Your task to perform on an android device: Open Youtube and go to the subscriptions tab Image 0: 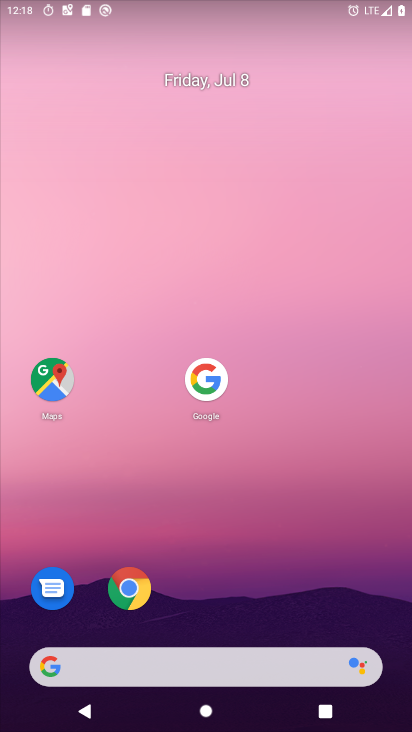
Step 0: drag from (209, 663) to (387, 111)
Your task to perform on an android device: Open Youtube and go to the subscriptions tab Image 1: 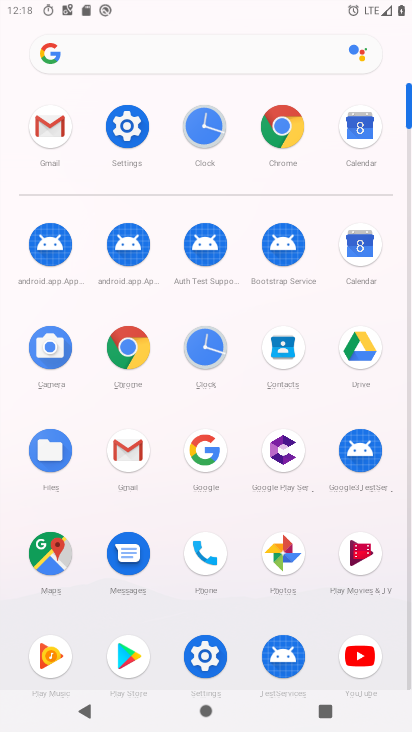
Step 1: click (351, 654)
Your task to perform on an android device: Open Youtube and go to the subscriptions tab Image 2: 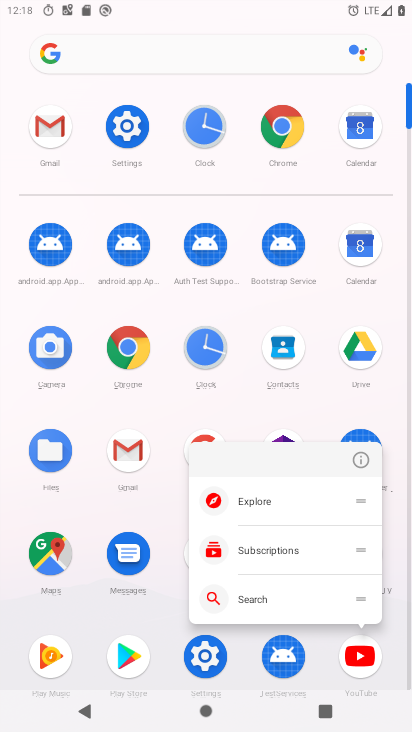
Step 2: click (355, 656)
Your task to perform on an android device: Open Youtube and go to the subscriptions tab Image 3: 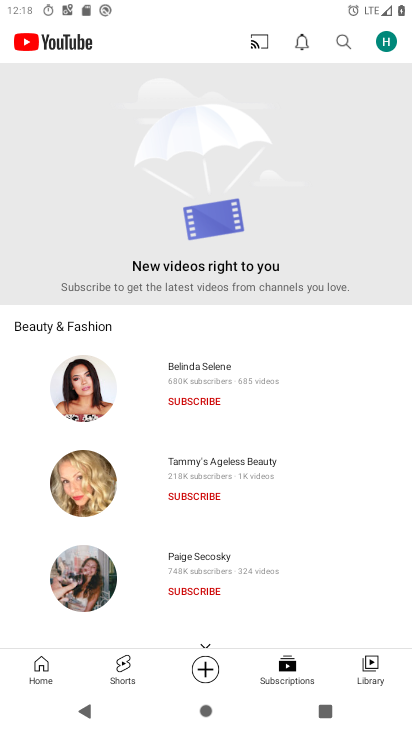
Step 3: task complete